Your task to perform on an android device: What's the weather today? Image 0: 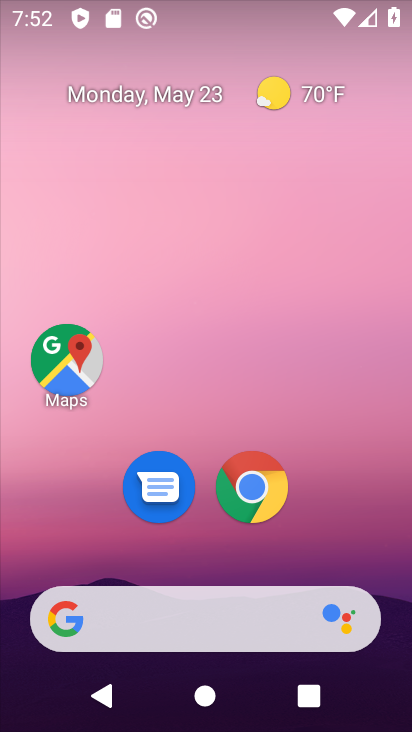
Step 0: drag from (231, 581) to (264, 114)
Your task to perform on an android device: What's the weather today? Image 1: 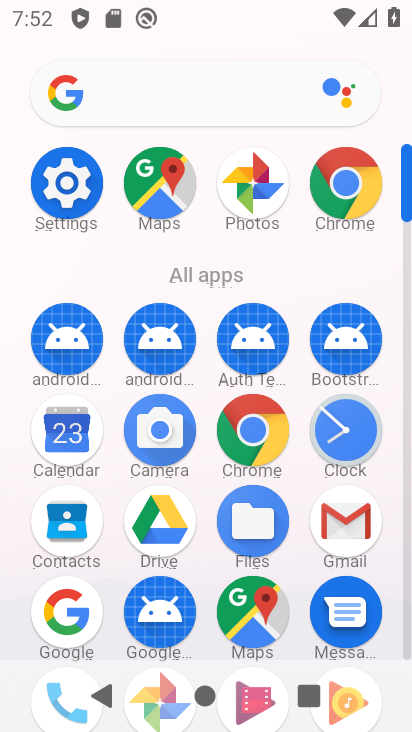
Step 1: click (62, 622)
Your task to perform on an android device: What's the weather today? Image 2: 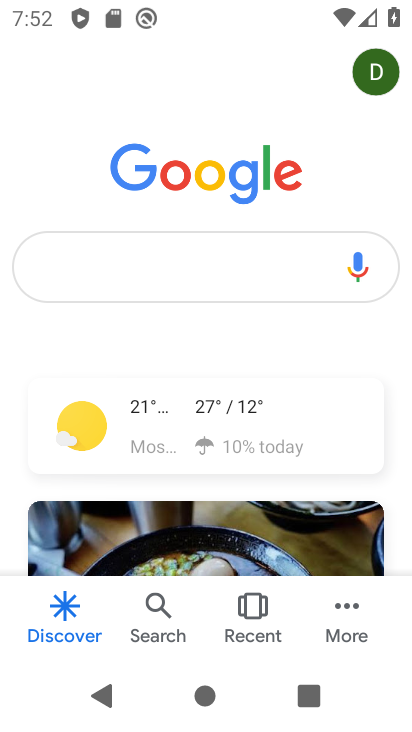
Step 2: click (185, 434)
Your task to perform on an android device: What's the weather today? Image 3: 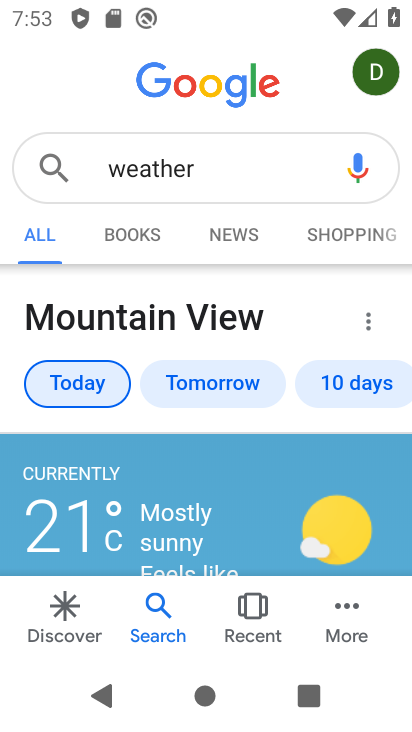
Step 3: task complete